Your task to perform on an android device: Go to Android settings Image 0: 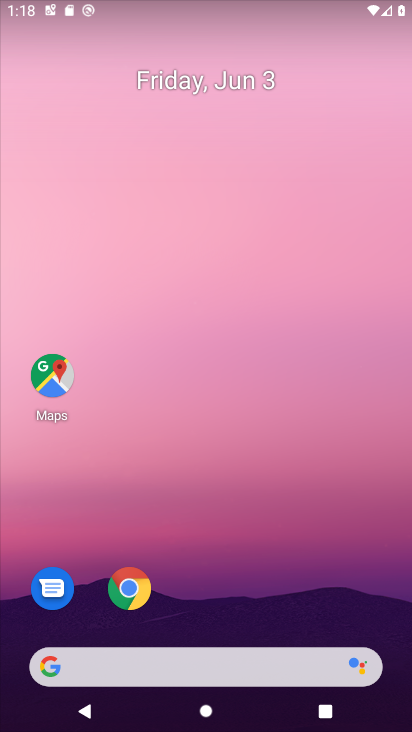
Step 0: drag from (229, 647) to (326, 166)
Your task to perform on an android device: Go to Android settings Image 1: 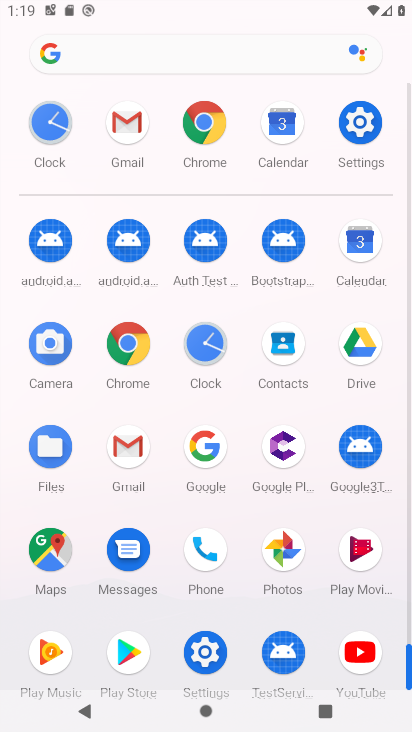
Step 1: click (381, 145)
Your task to perform on an android device: Go to Android settings Image 2: 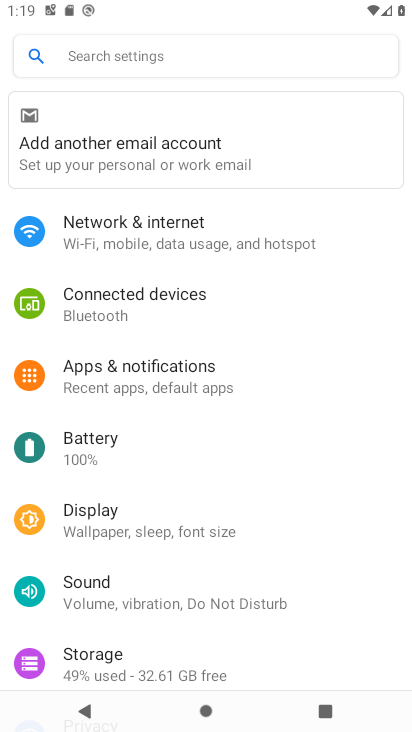
Step 2: drag from (226, 588) to (254, 180)
Your task to perform on an android device: Go to Android settings Image 3: 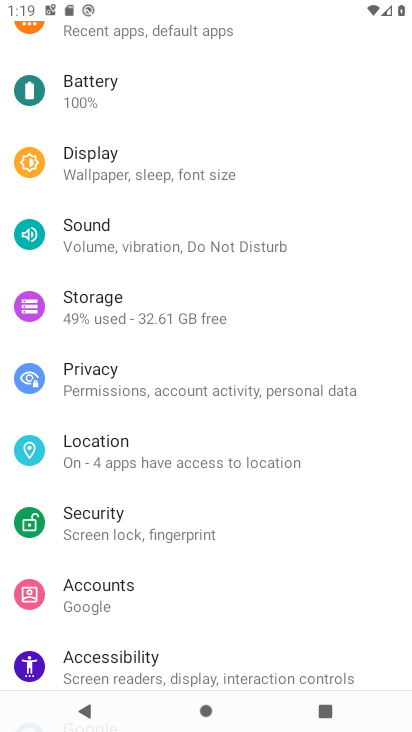
Step 3: drag from (237, 469) to (184, 62)
Your task to perform on an android device: Go to Android settings Image 4: 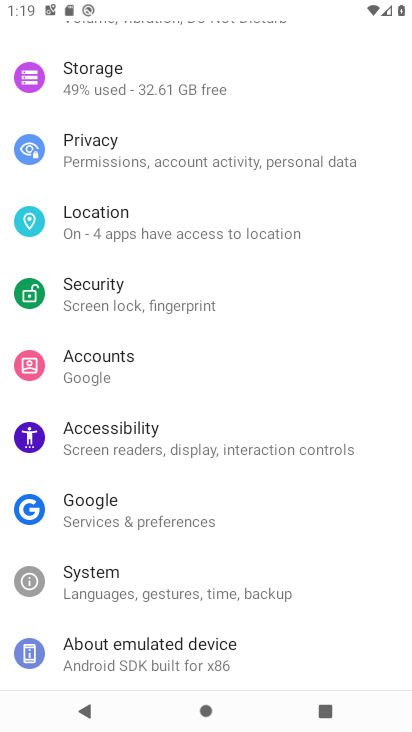
Step 4: drag from (178, 478) to (176, 148)
Your task to perform on an android device: Go to Android settings Image 5: 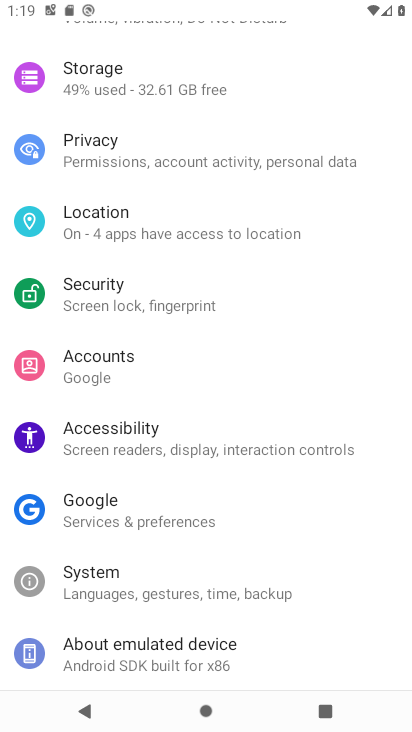
Step 5: click (151, 654)
Your task to perform on an android device: Go to Android settings Image 6: 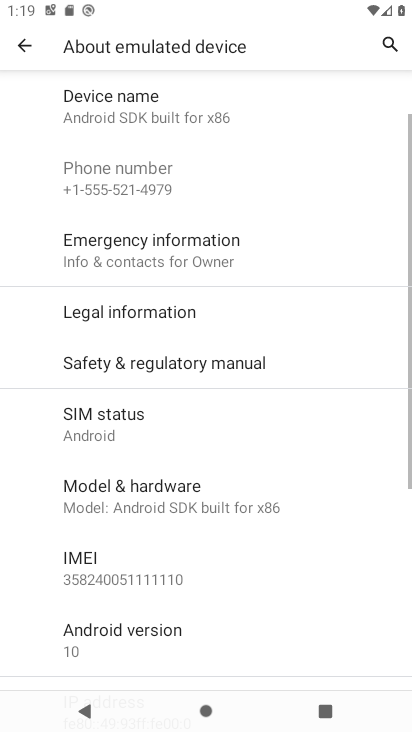
Step 6: click (108, 642)
Your task to perform on an android device: Go to Android settings Image 7: 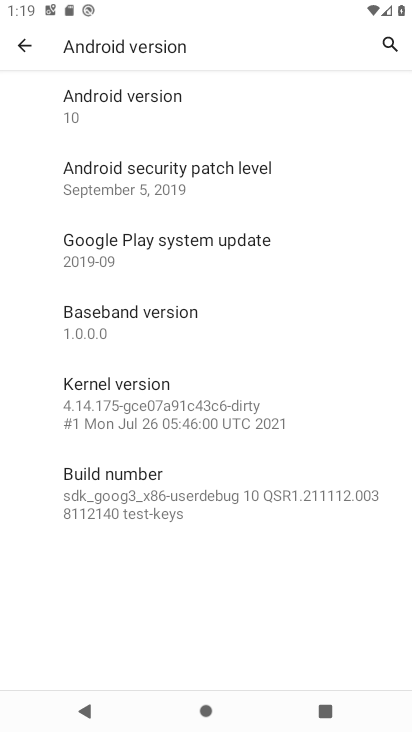
Step 7: task complete